Your task to perform on an android device: Go to Android settings Image 0: 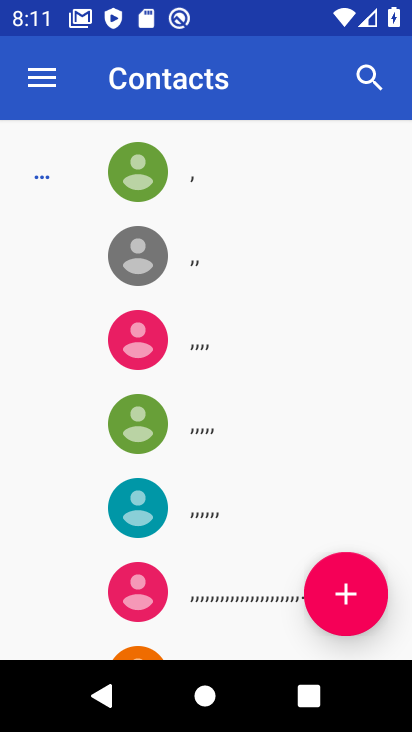
Step 0: press home button
Your task to perform on an android device: Go to Android settings Image 1: 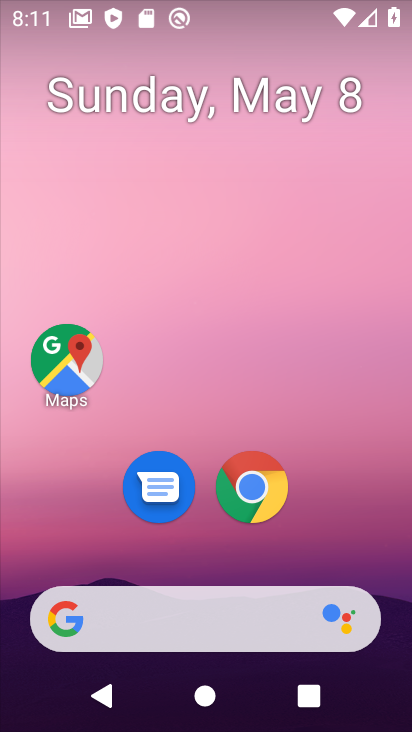
Step 1: drag from (361, 507) to (405, 4)
Your task to perform on an android device: Go to Android settings Image 2: 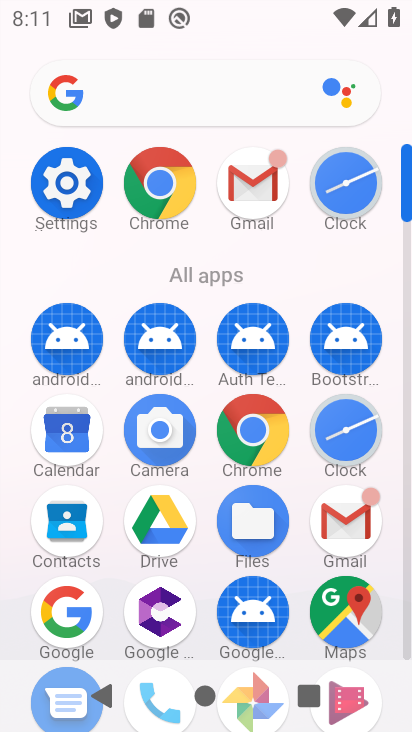
Step 2: click (74, 210)
Your task to perform on an android device: Go to Android settings Image 3: 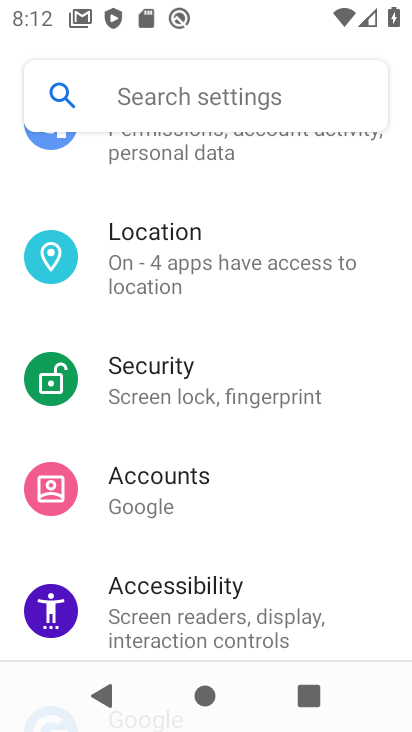
Step 3: drag from (184, 571) to (242, 224)
Your task to perform on an android device: Go to Android settings Image 4: 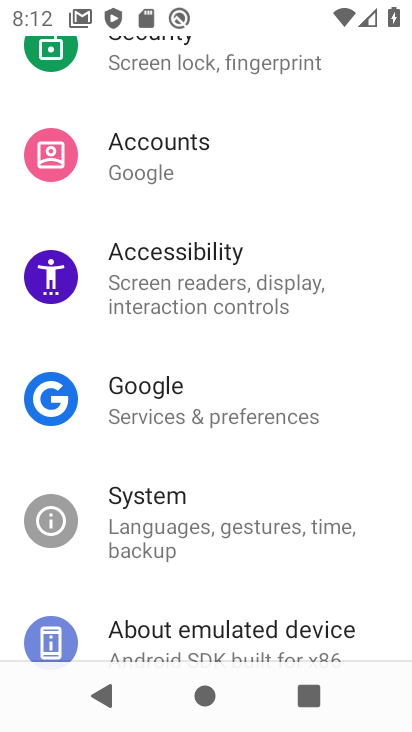
Step 4: click (205, 620)
Your task to perform on an android device: Go to Android settings Image 5: 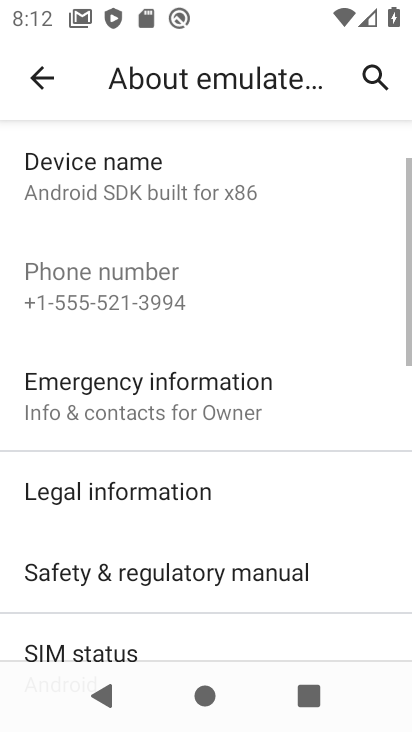
Step 5: click (250, 169)
Your task to perform on an android device: Go to Android settings Image 6: 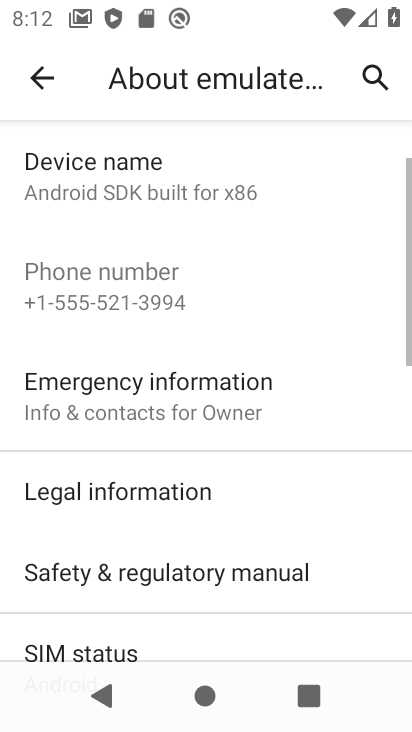
Step 6: click (250, 169)
Your task to perform on an android device: Go to Android settings Image 7: 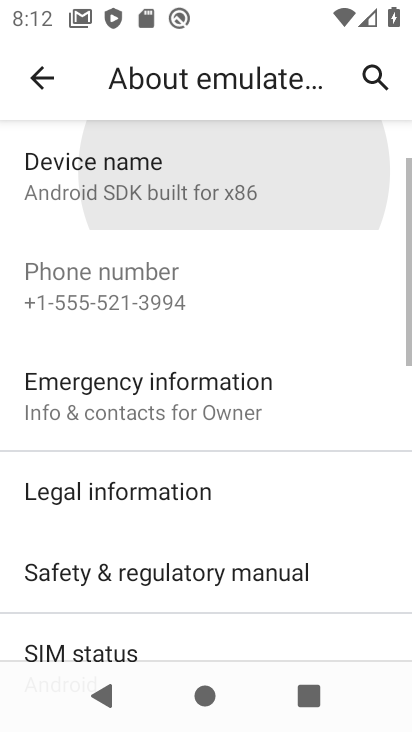
Step 7: click (250, 169)
Your task to perform on an android device: Go to Android settings Image 8: 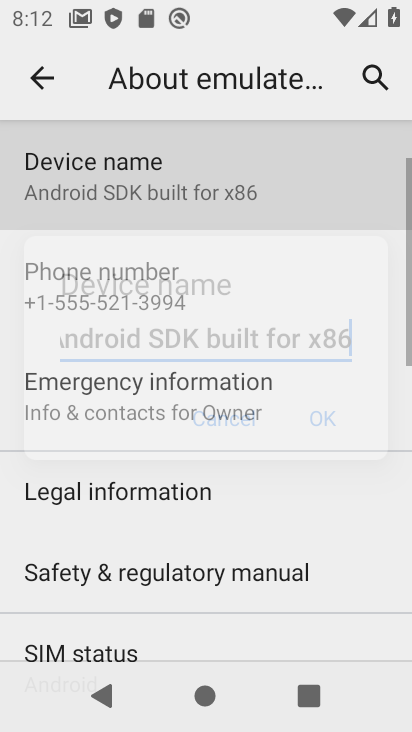
Step 8: click (250, 169)
Your task to perform on an android device: Go to Android settings Image 9: 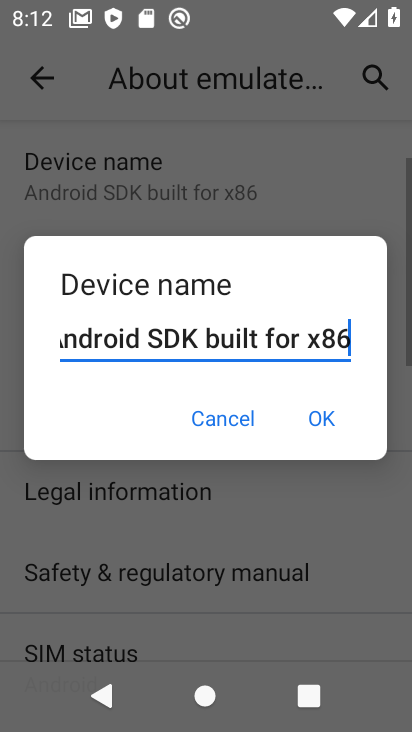
Step 9: click (250, 169)
Your task to perform on an android device: Go to Android settings Image 10: 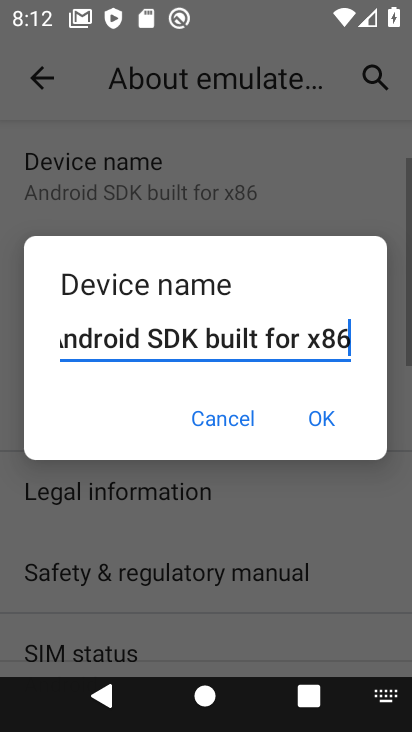
Step 10: click (250, 169)
Your task to perform on an android device: Go to Android settings Image 11: 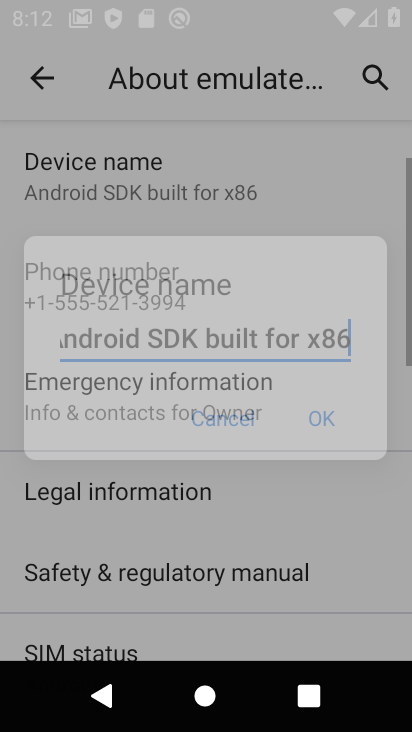
Step 11: click (250, 169)
Your task to perform on an android device: Go to Android settings Image 12: 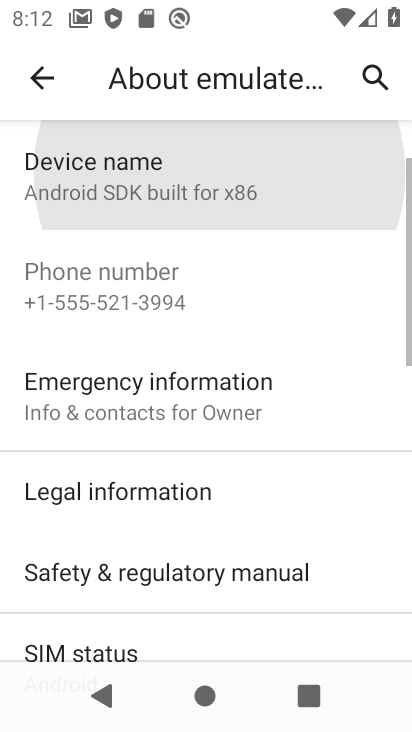
Step 12: click (250, 169)
Your task to perform on an android device: Go to Android settings Image 13: 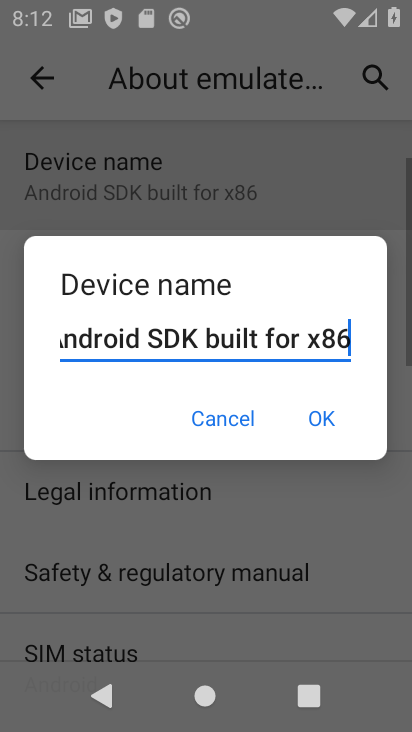
Step 13: click (250, 169)
Your task to perform on an android device: Go to Android settings Image 14: 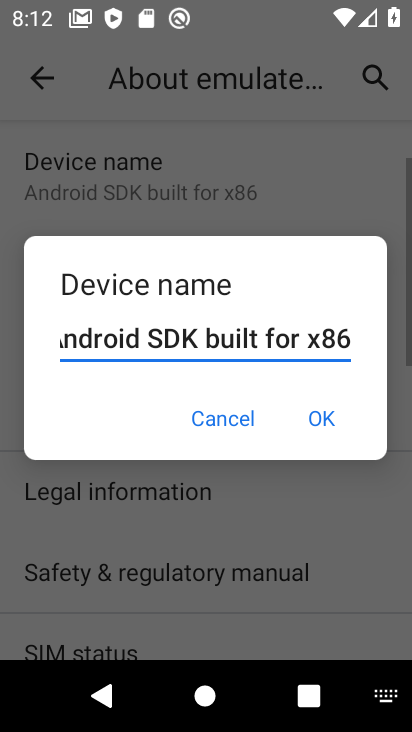
Step 14: click (304, 422)
Your task to perform on an android device: Go to Android settings Image 15: 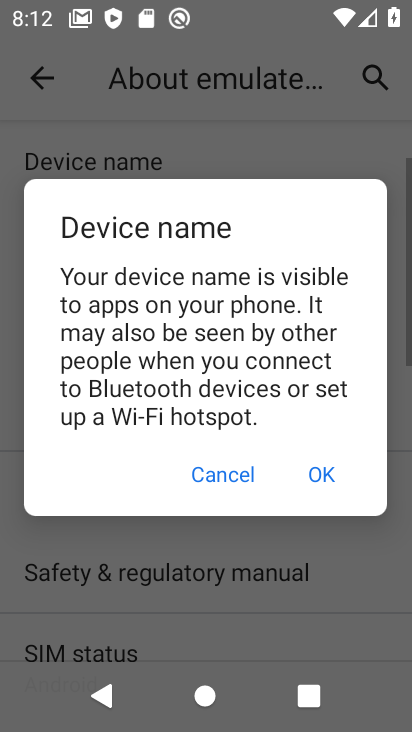
Step 15: click (323, 472)
Your task to perform on an android device: Go to Android settings Image 16: 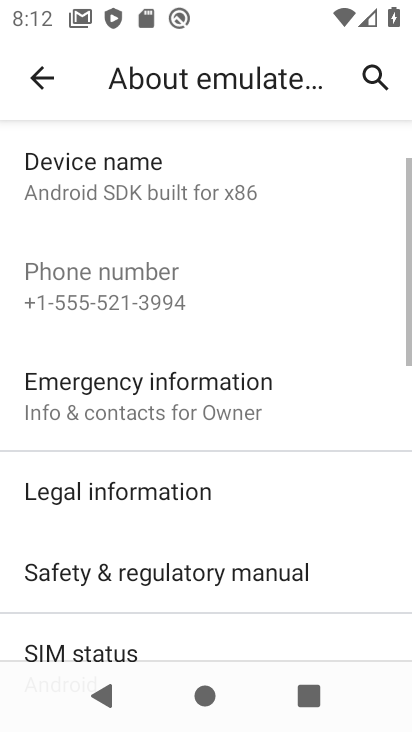
Step 16: drag from (165, 314) to (193, 75)
Your task to perform on an android device: Go to Android settings Image 17: 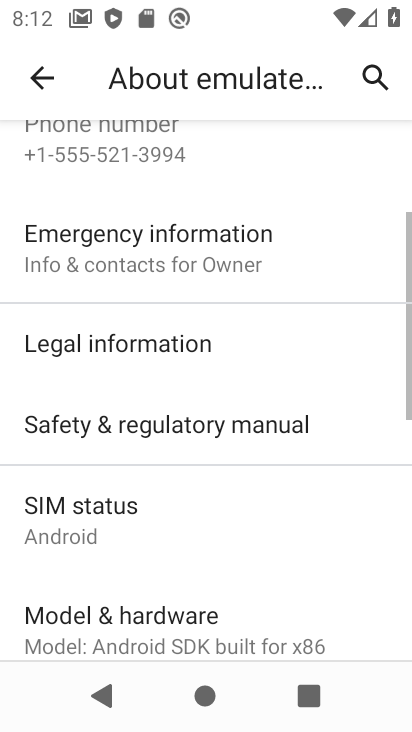
Step 17: click (176, 523)
Your task to perform on an android device: Go to Android settings Image 18: 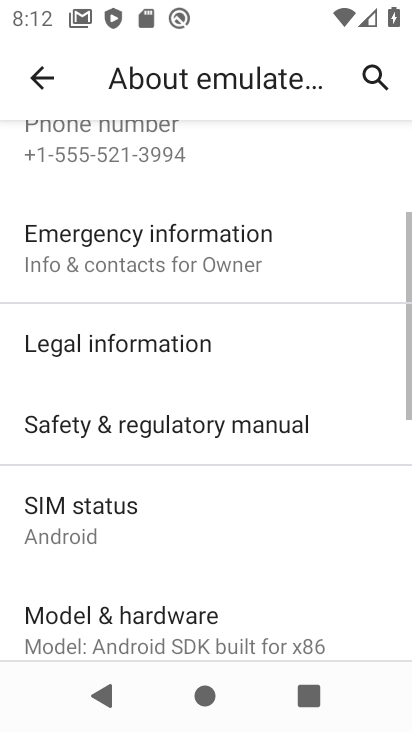
Step 18: click (176, 523)
Your task to perform on an android device: Go to Android settings Image 19: 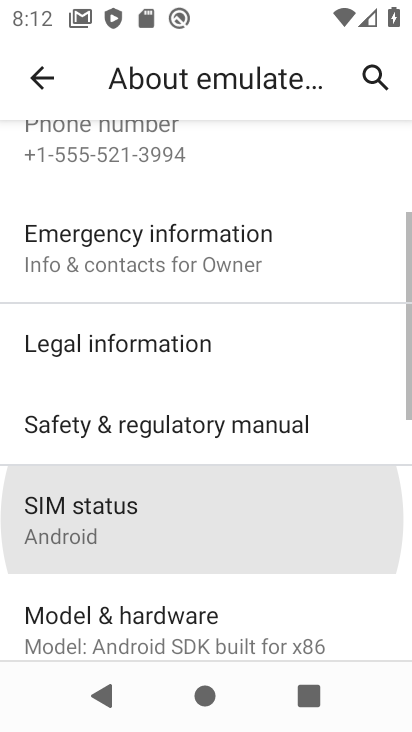
Step 19: click (176, 523)
Your task to perform on an android device: Go to Android settings Image 20: 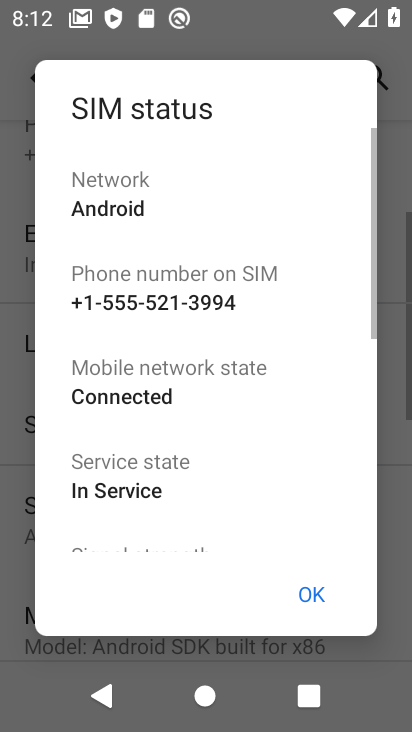
Step 20: click (176, 523)
Your task to perform on an android device: Go to Android settings Image 21: 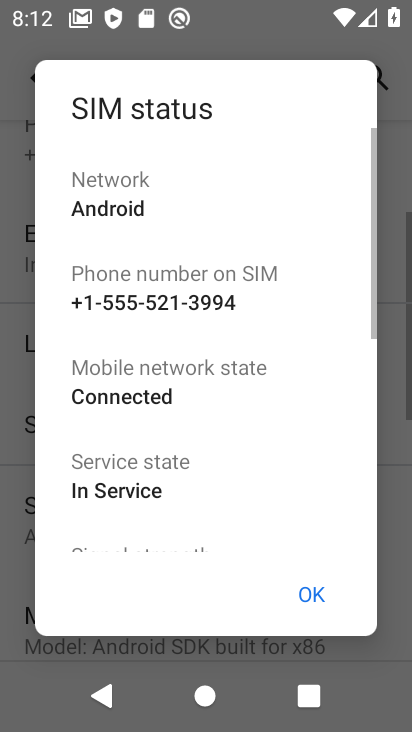
Step 21: click (176, 523)
Your task to perform on an android device: Go to Android settings Image 22: 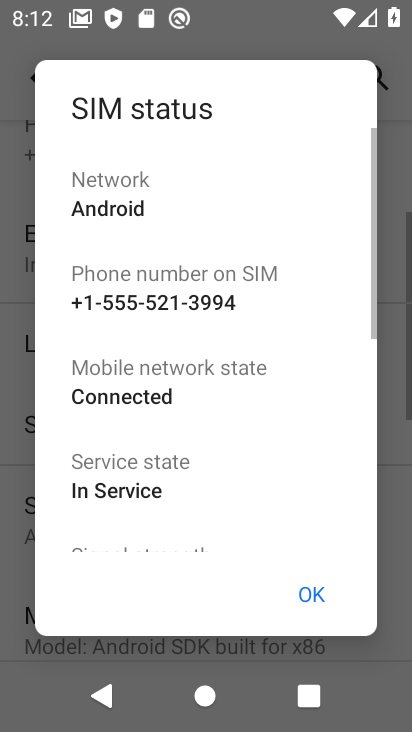
Step 22: click (176, 523)
Your task to perform on an android device: Go to Android settings Image 23: 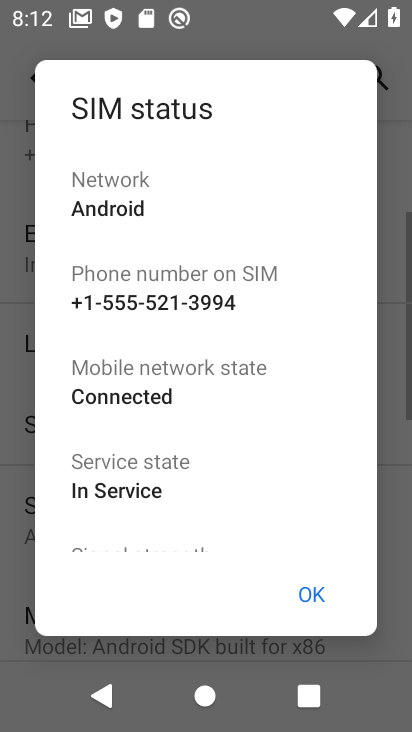
Step 23: click (297, 591)
Your task to perform on an android device: Go to Android settings Image 24: 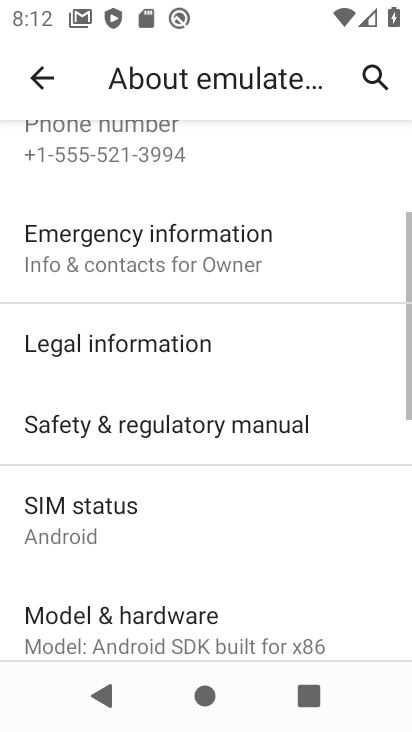
Step 24: task complete